Your task to perform on an android device: change notifications settings Image 0: 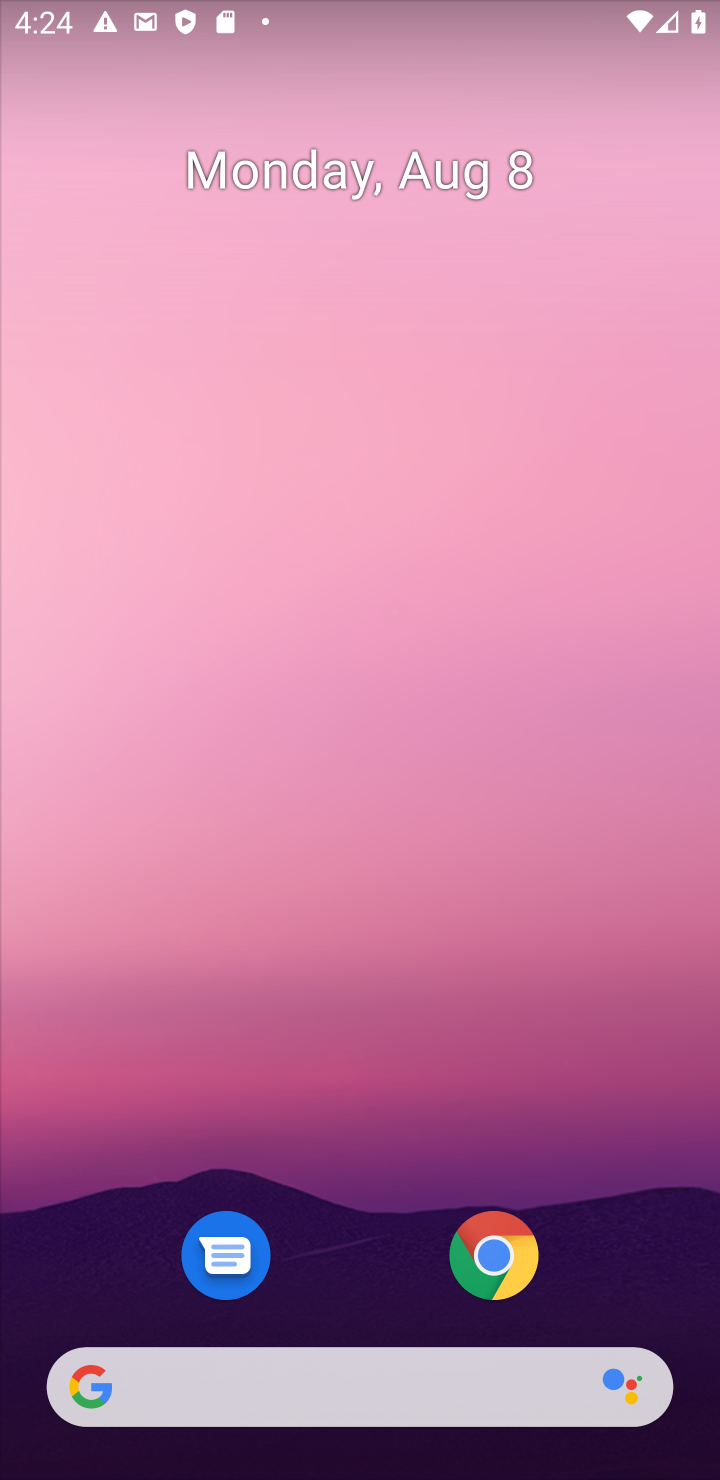
Step 0: drag from (302, 1411) to (622, 280)
Your task to perform on an android device: change notifications settings Image 1: 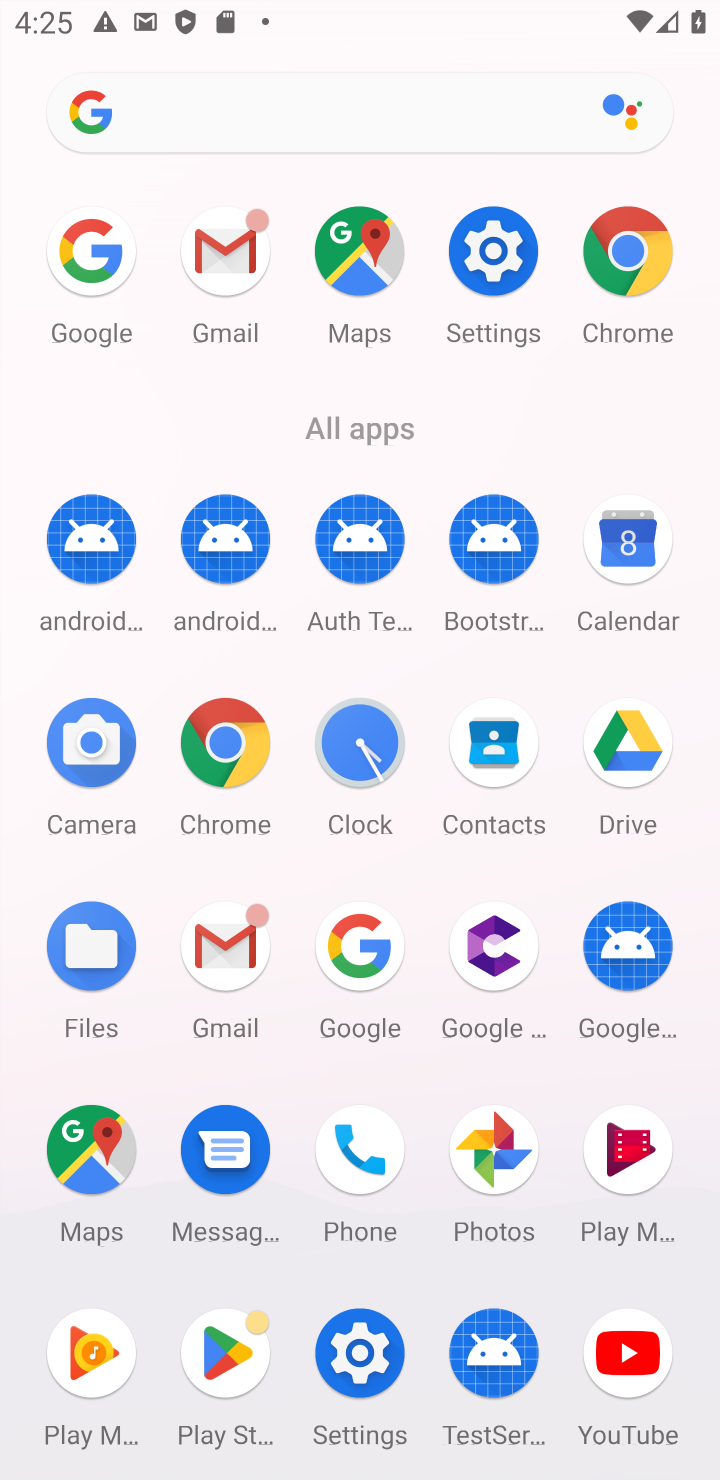
Step 1: click (491, 247)
Your task to perform on an android device: change notifications settings Image 2: 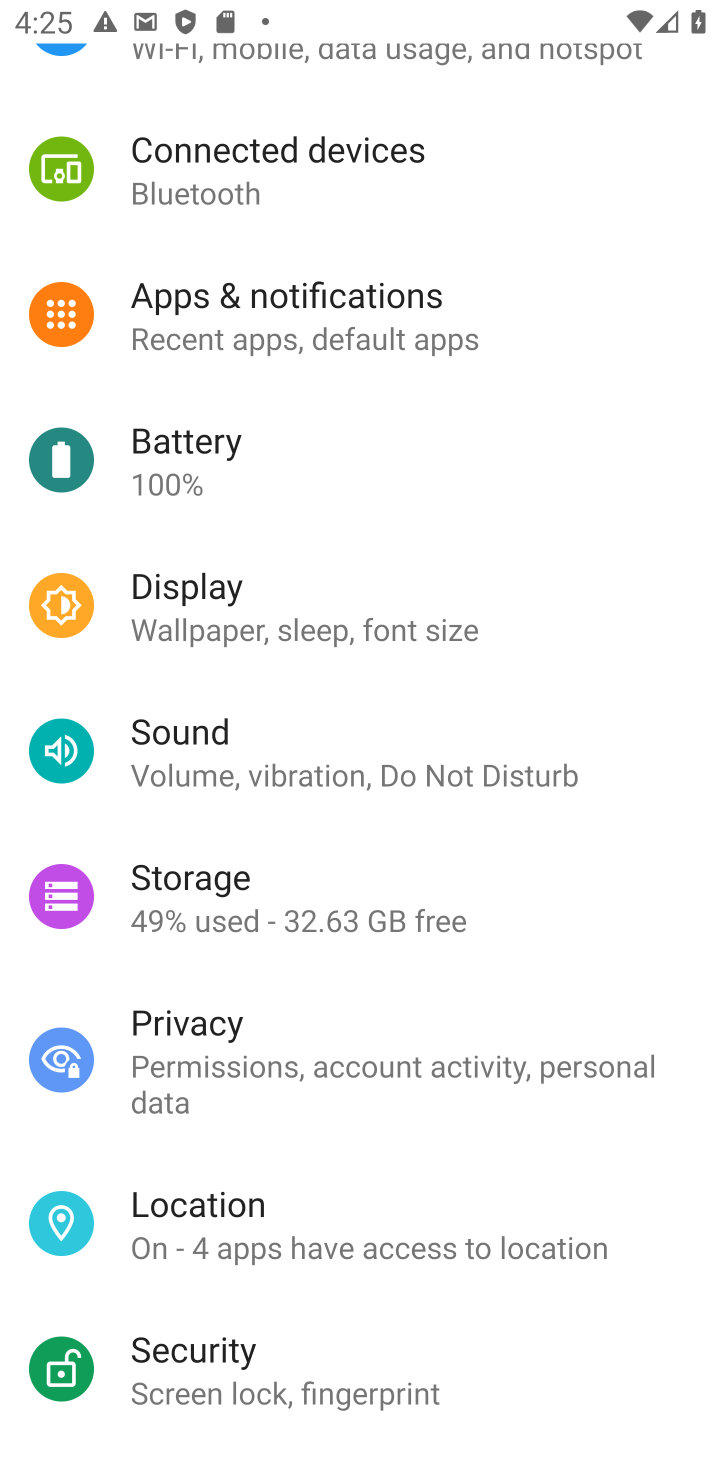
Step 2: click (359, 355)
Your task to perform on an android device: change notifications settings Image 3: 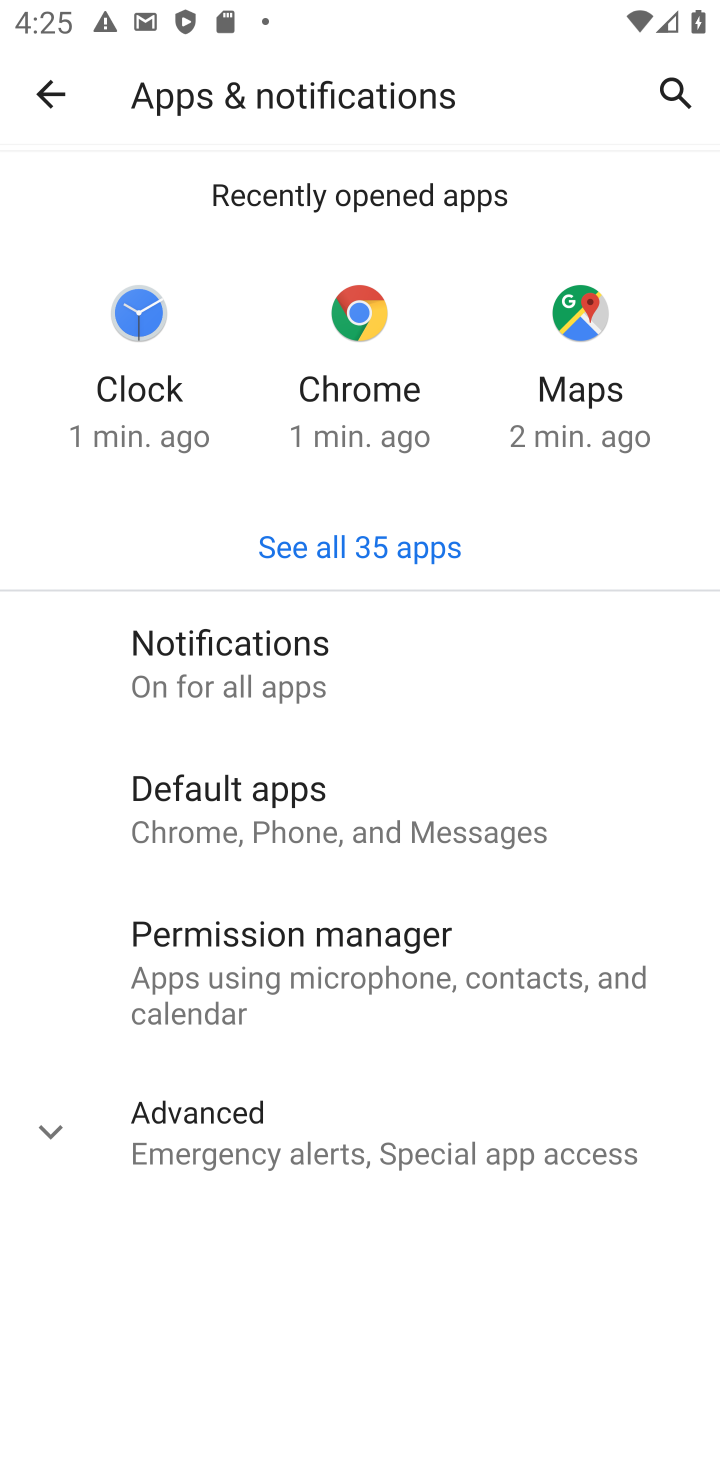
Step 3: click (268, 651)
Your task to perform on an android device: change notifications settings Image 4: 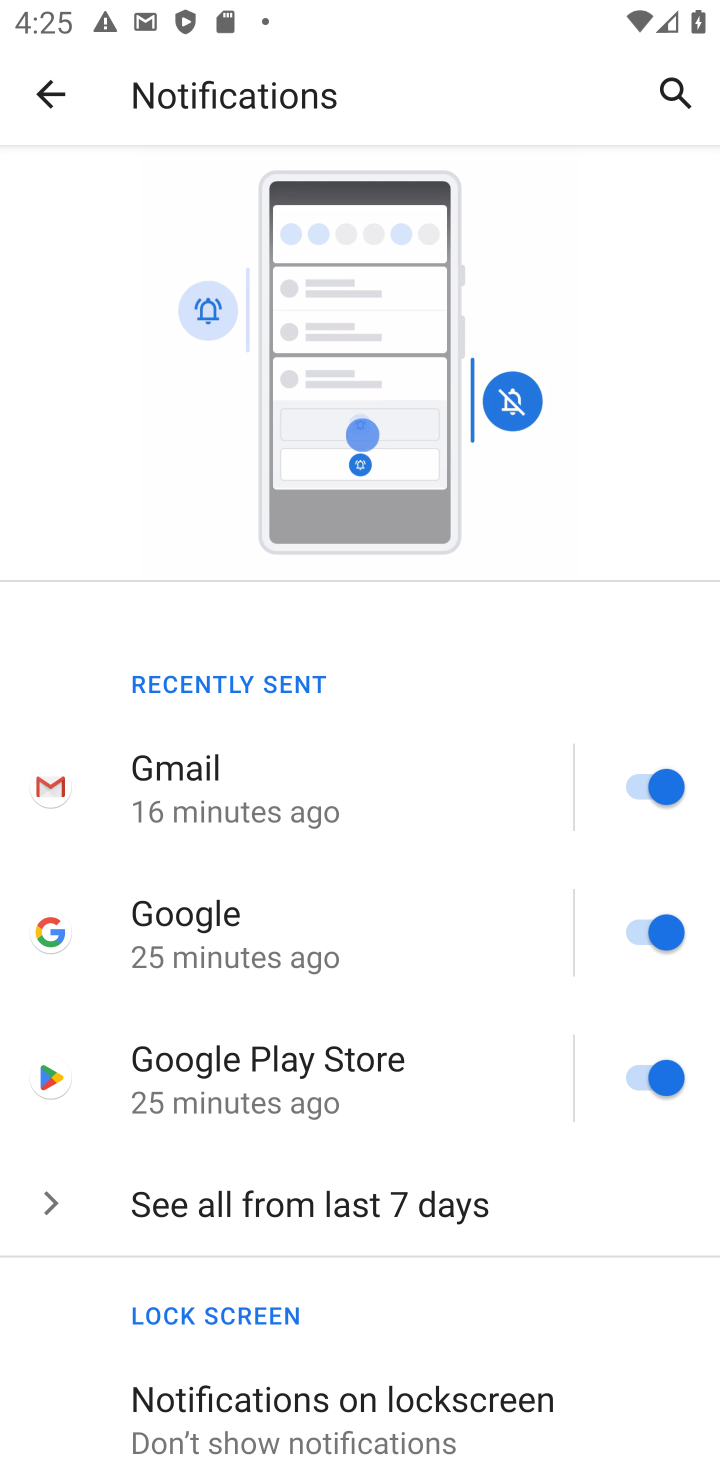
Step 4: drag from (293, 990) to (348, 778)
Your task to perform on an android device: change notifications settings Image 5: 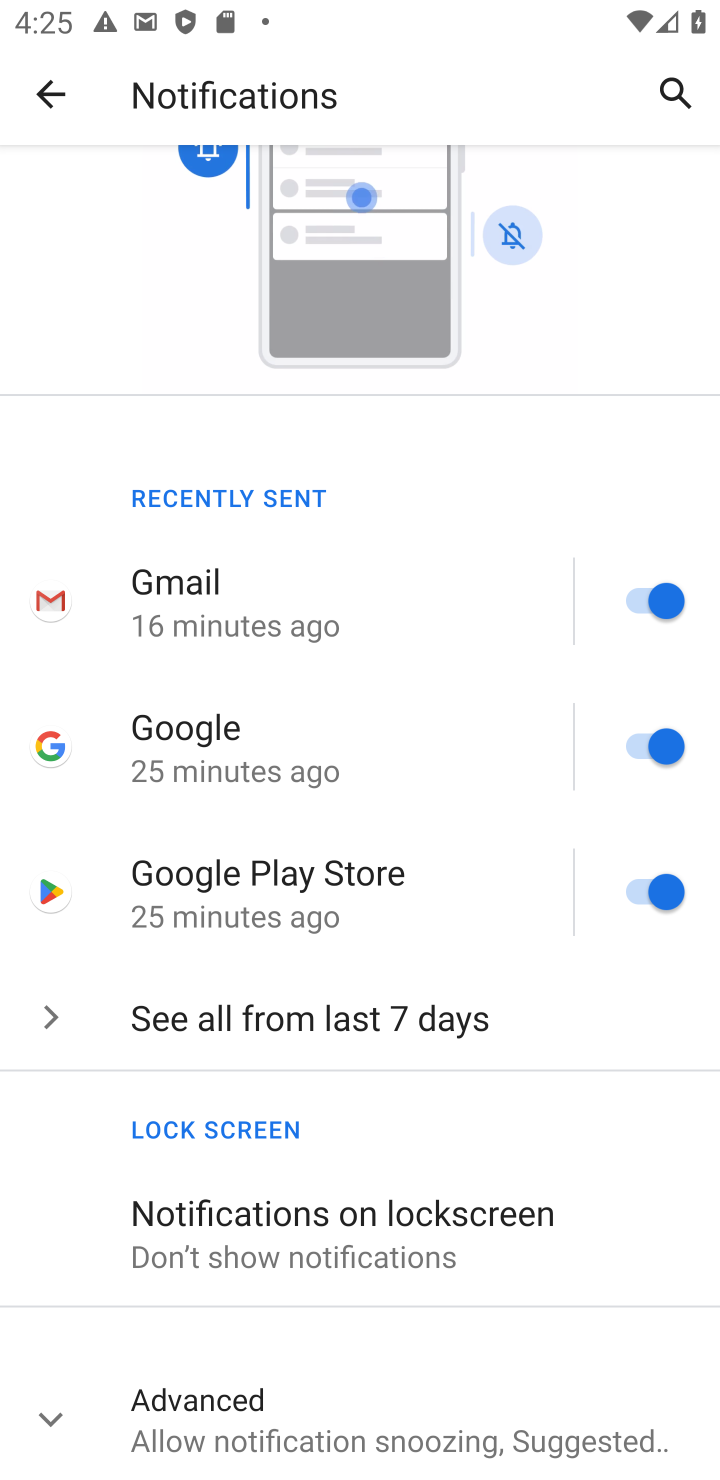
Step 5: drag from (338, 1102) to (266, 796)
Your task to perform on an android device: change notifications settings Image 6: 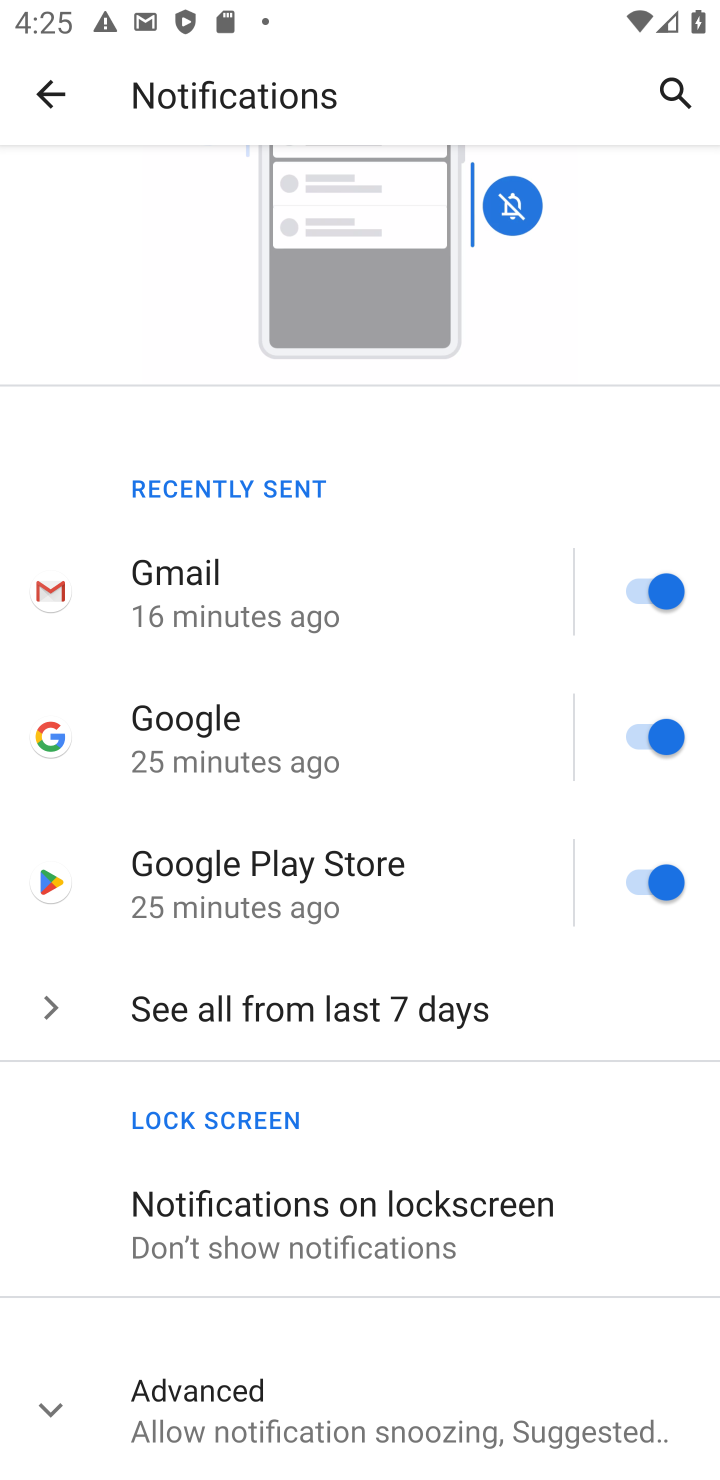
Step 6: click (320, 1418)
Your task to perform on an android device: change notifications settings Image 7: 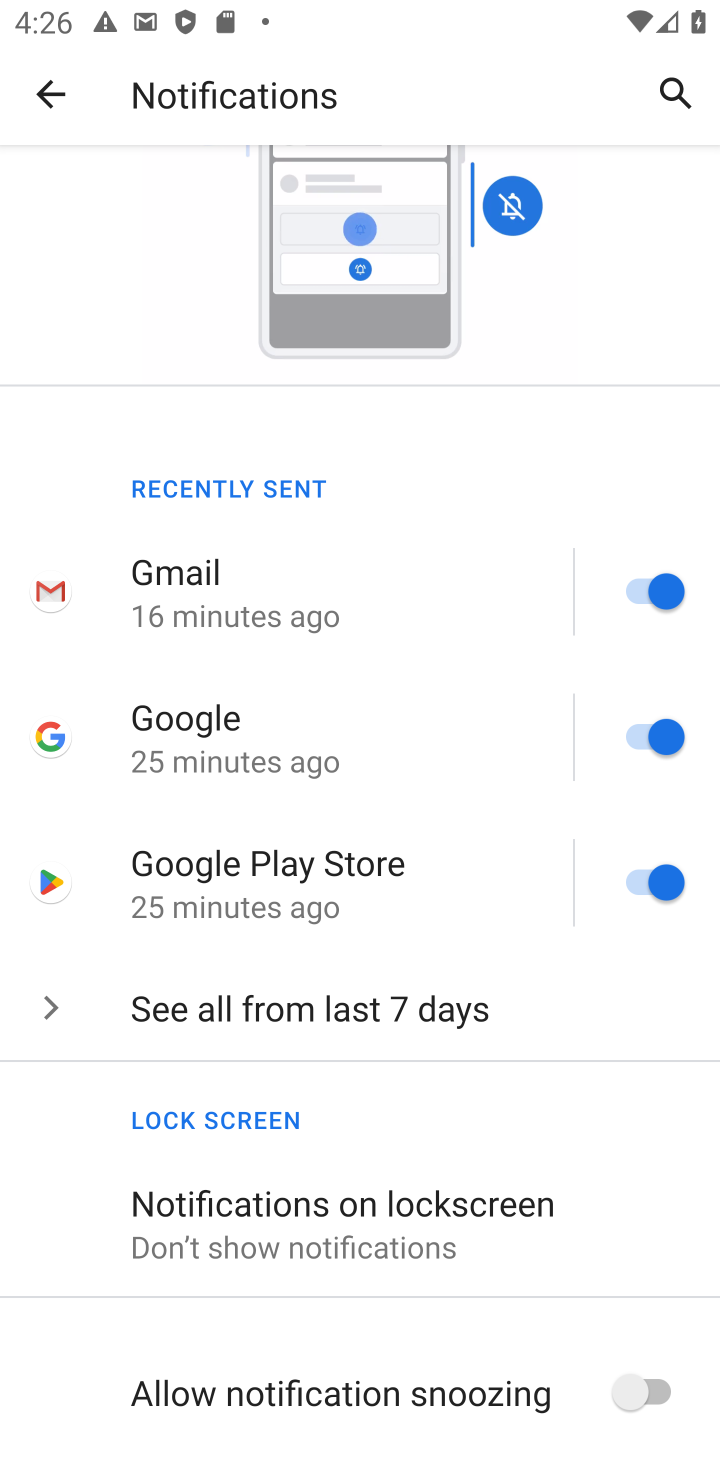
Step 7: drag from (376, 1362) to (530, 1048)
Your task to perform on an android device: change notifications settings Image 8: 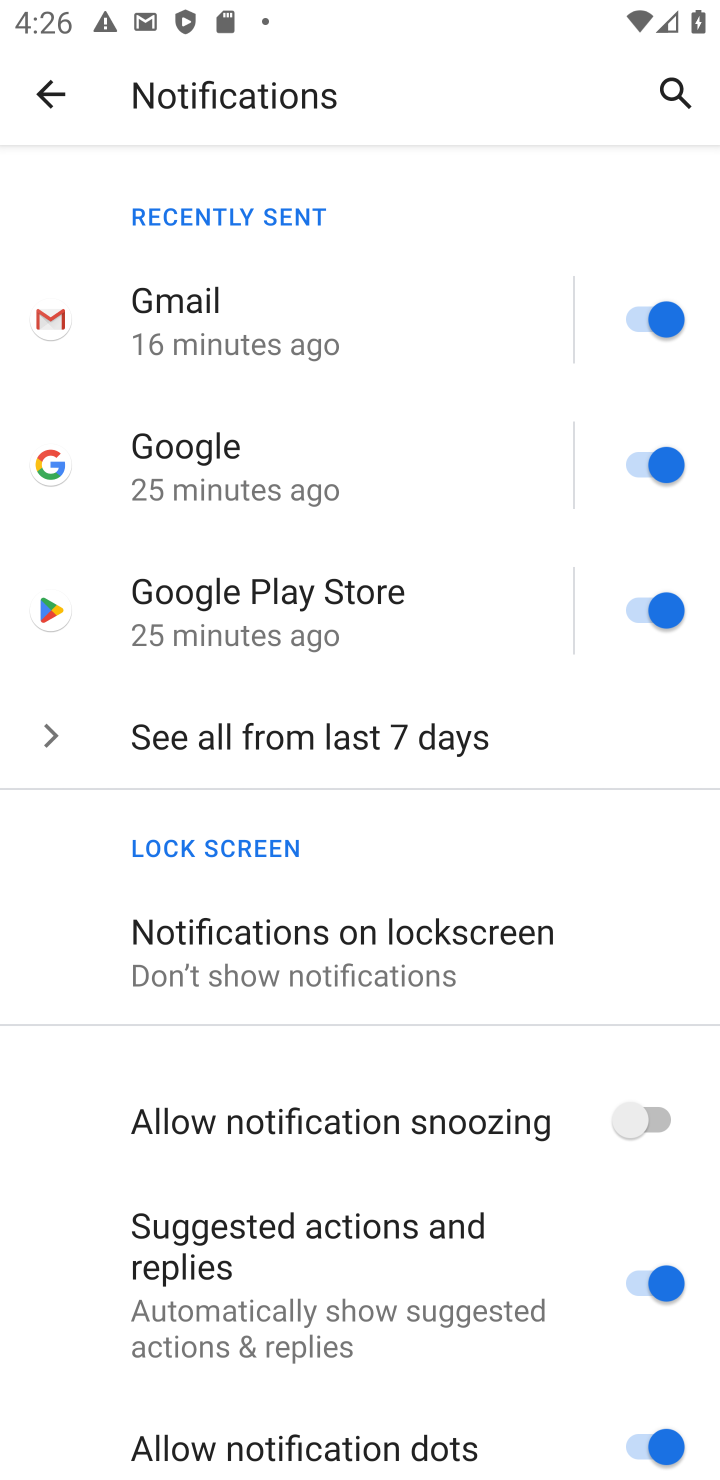
Step 8: drag from (393, 1332) to (418, 1016)
Your task to perform on an android device: change notifications settings Image 9: 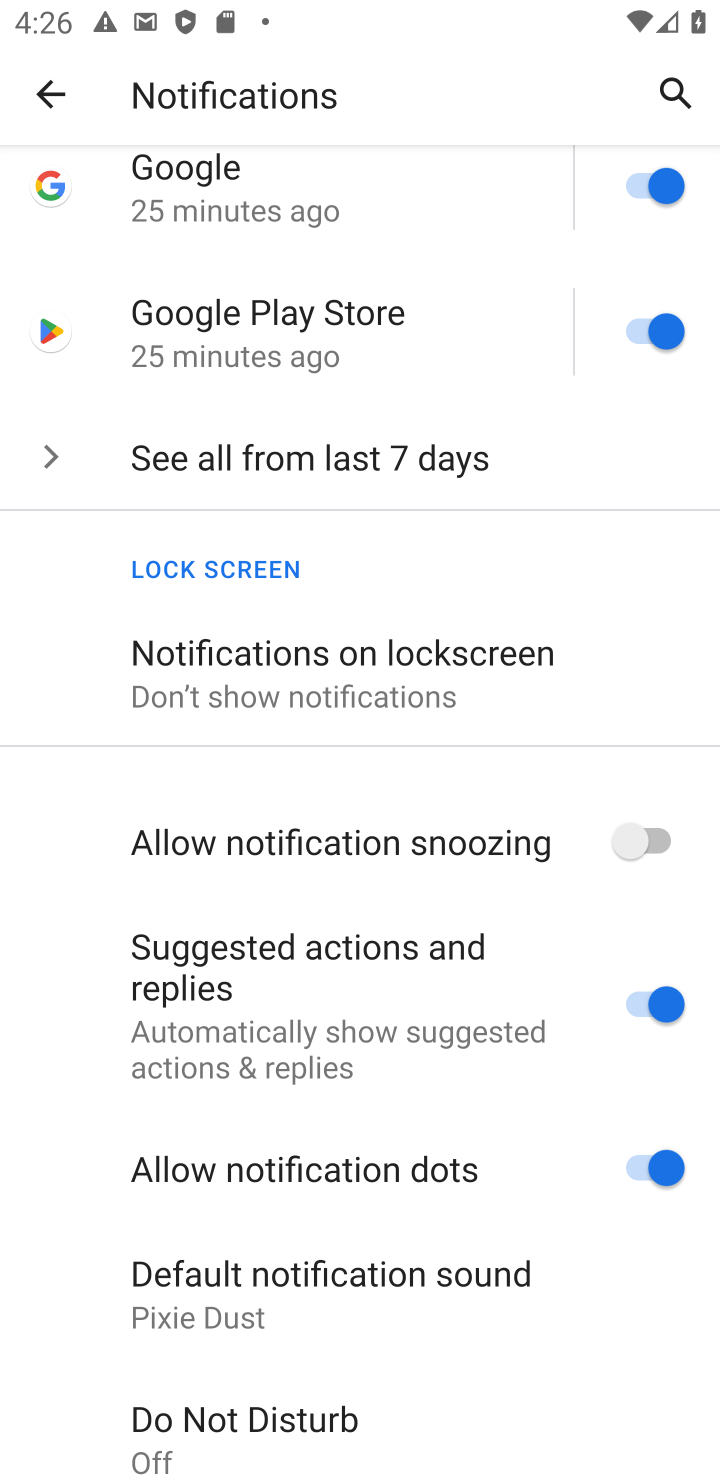
Step 9: click (634, 1170)
Your task to perform on an android device: change notifications settings Image 10: 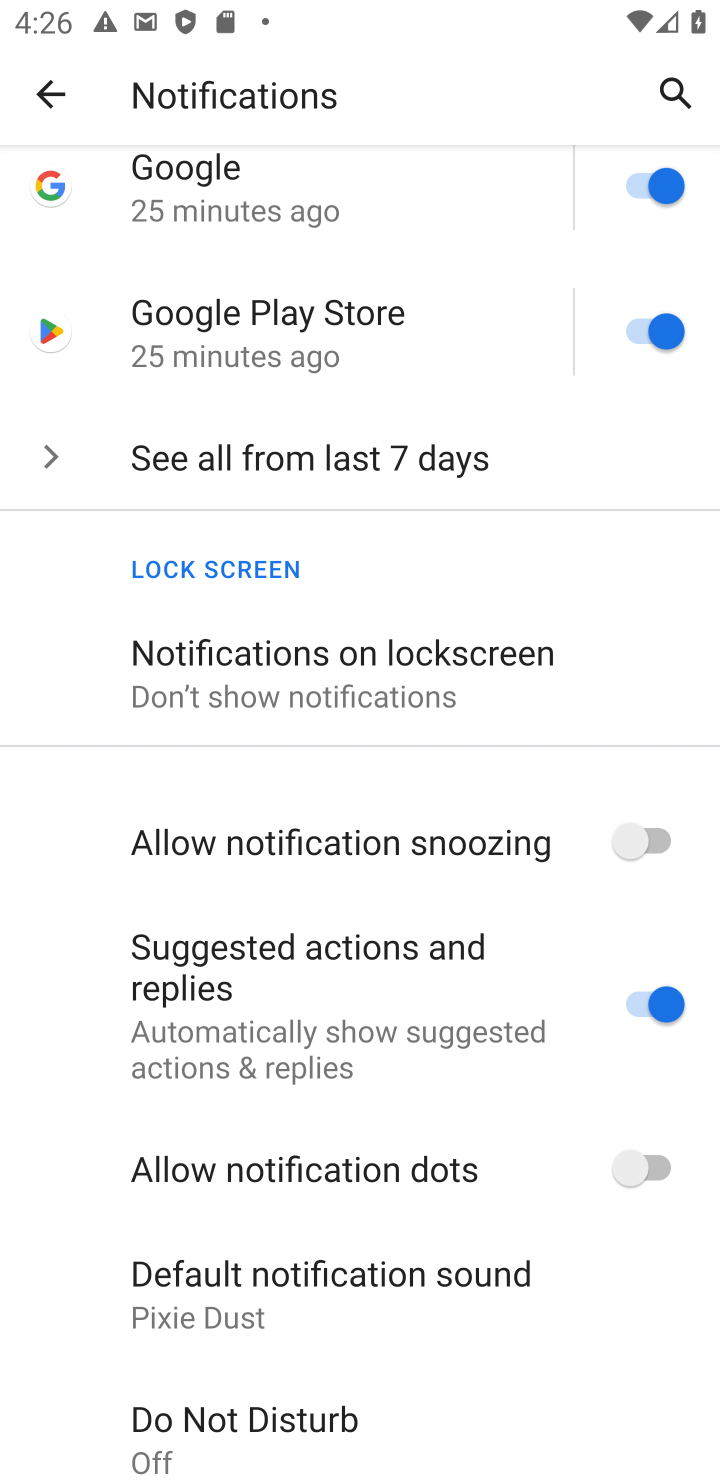
Step 10: task complete